Your task to perform on an android device: turn on translation in the chrome app Image 0: 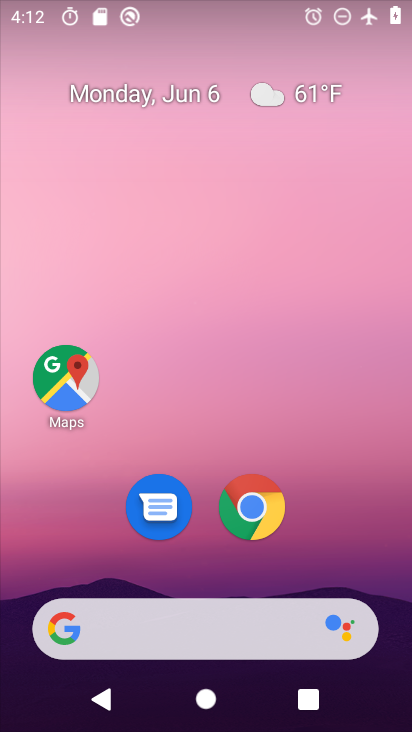
Step 0: click (239, 515)
Your task to perform on an android device: turn on translation in the chrome app Image 1: 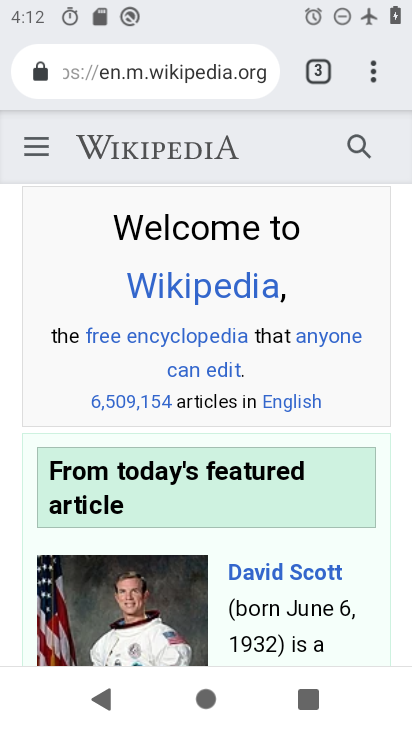
Step 1: click (372, 63)
Your task to perform on an android device: turn on translation in the chrome app Image 2: 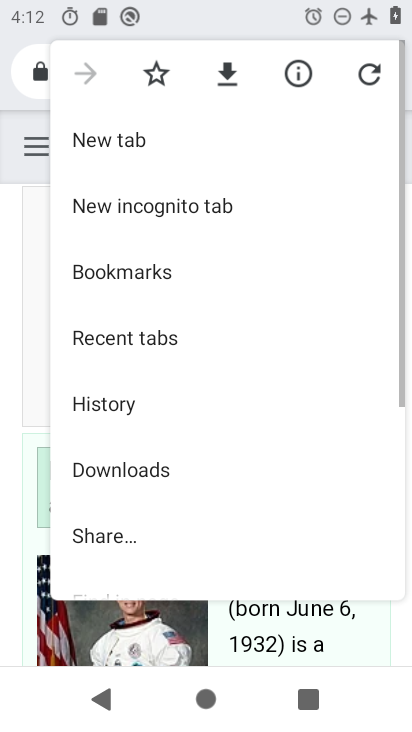
Step 2: drag from (161, 469) to (216, 218)
Your task to perform on an android device: turn on translation in the chrome app Image 3: 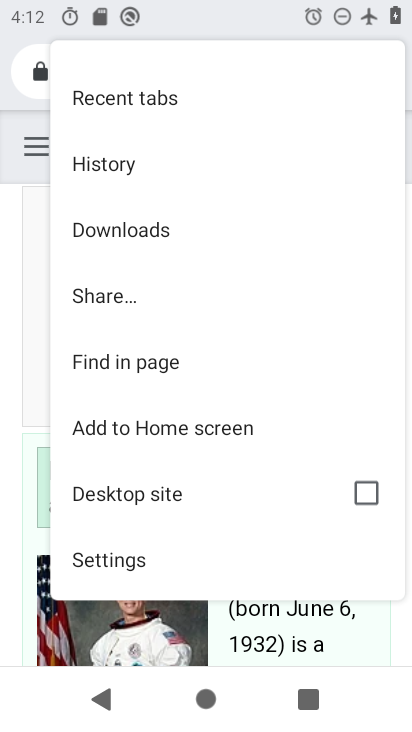
Step 3: click (152, 563)
Your task to perform on an android device: turn on translation in the chrome app Image 4: 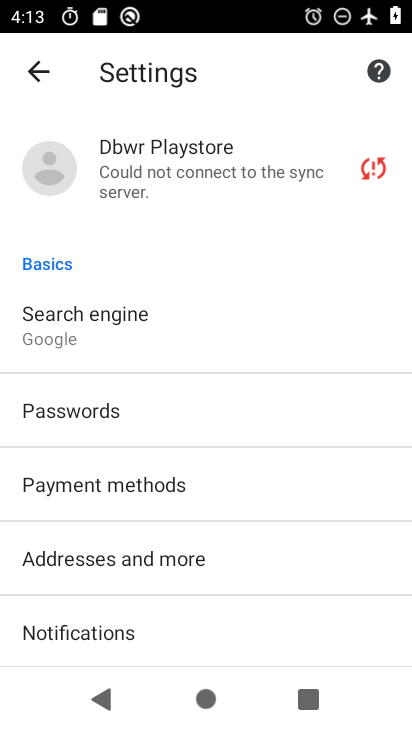
Step 4: drag from (174, 606) to (187, 364)
Your task to perform on an android device: turn on translation in the chrome app Image 5: 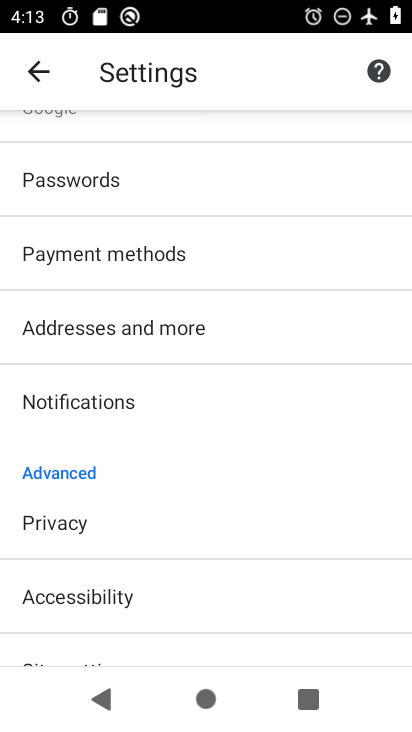
Step 5: drag from (217, 572) to (216, 309)
Your task to perform on an android device: turn on translation in the chrome app Image 6: 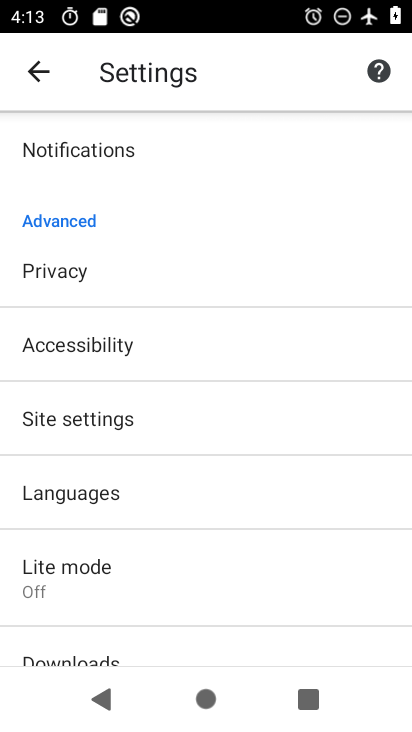
Step 6: drag from (131, 596) to (211, 313)
Your task to perform on an android device: turn on translation in the chrome app Image 7: 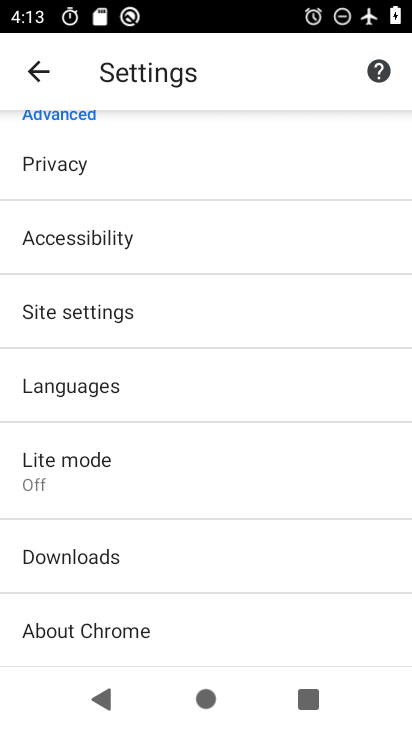
Step 7: click (182, 406)
Your task to perform on an android device: turn on translation in the chrome app Image 8: 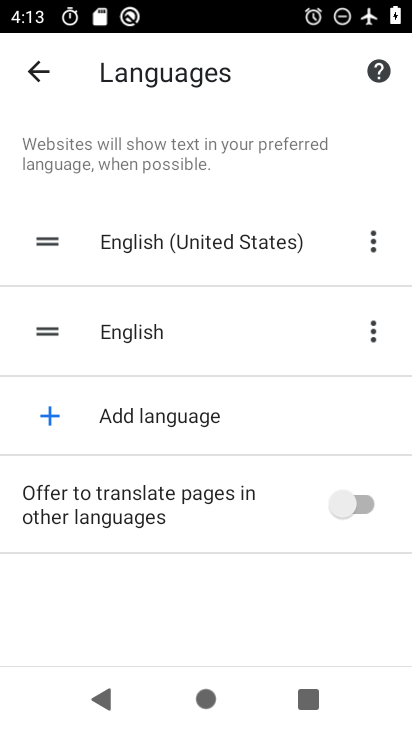
Step 8: click (371, 497)
Your task to perform on an android device: turn on translation in the chrome app Image 9: 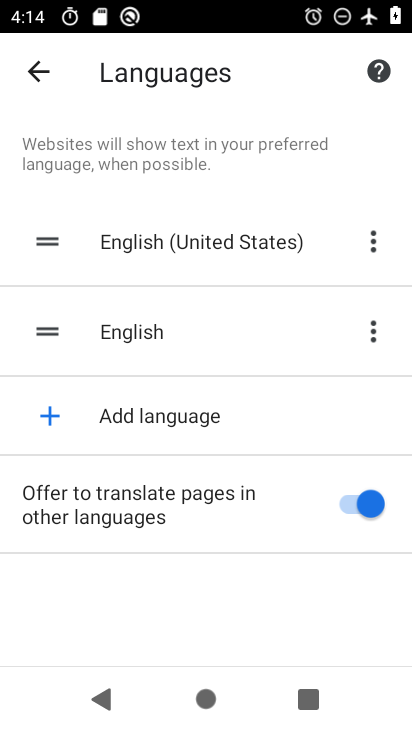
Step 9: task complete